Your task to perform on an android device: add a contact in the contacts app Image 0: 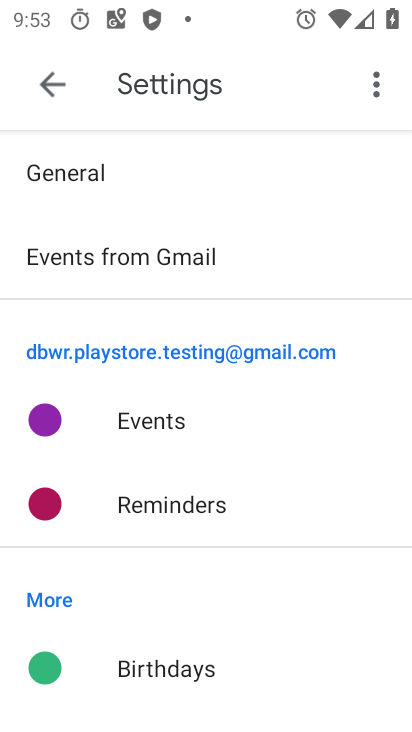
Step 0: press home button
Your task to perform on an android device: add a contact in the contacts app Image 1: 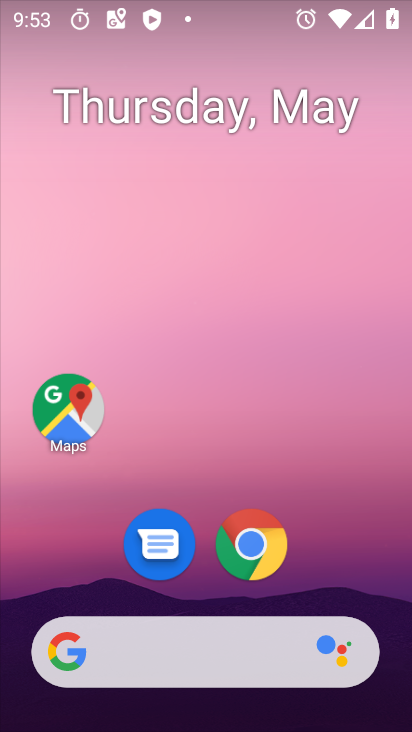
Step 1: drag from (218, 568) to (227, 264)
Your task to perform on an android device: add a contact in the contacts app Image 2: 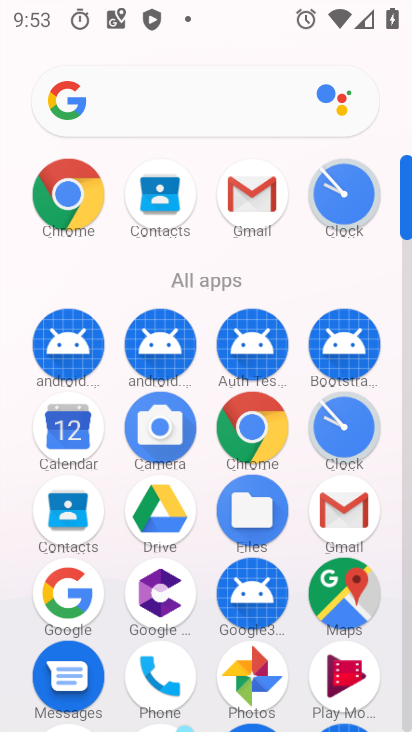
Step 2: click (76, 507)
Your task to perform on an android device: add a contact in the contacts app Image 3: 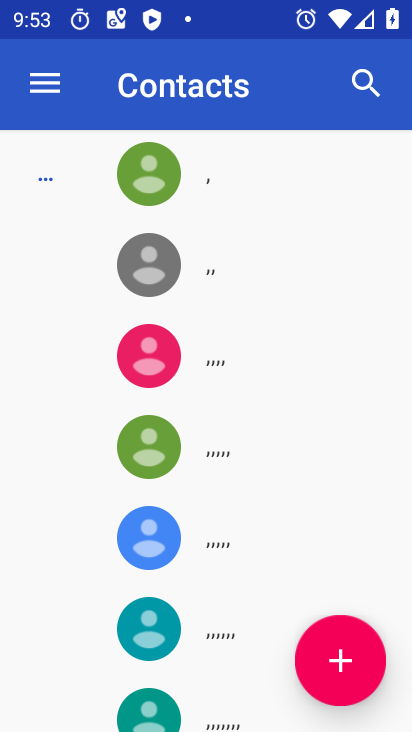
Step 3: click (333, 667)
Your task to perform on an android device: add a contact in the contacts app Image 4: 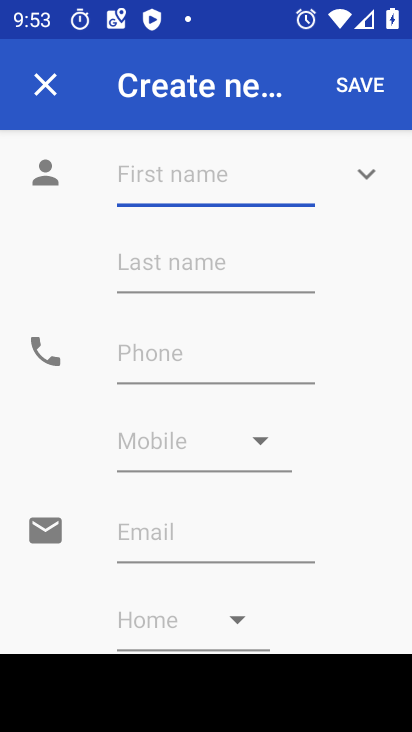
Step 4: type "dfdf"
Your task to perform on an android device: add a contact in the contacts app Image 5: 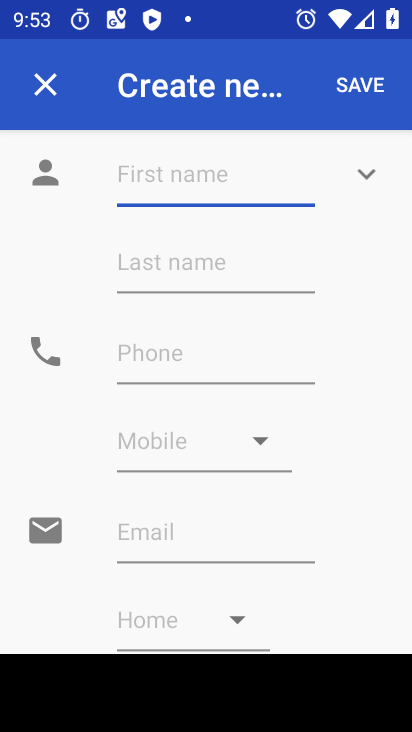
Step 5: click (161, 267)
Your task to perform on an android device: add a contact in the contacts app Image 6: 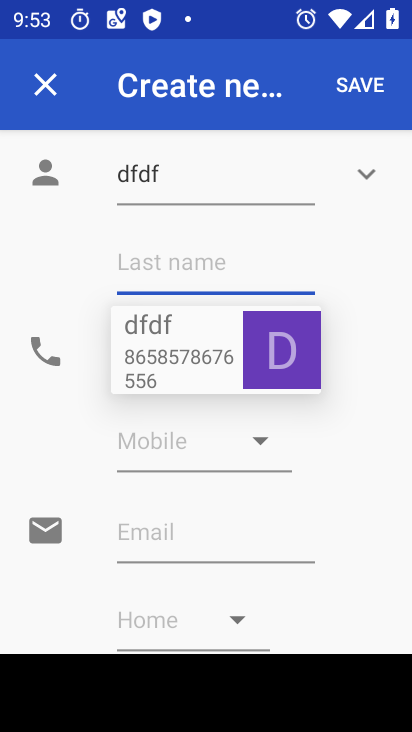
Step 6: type "dgdg"
Your task to perform on an android device: add a contact in the contacts app Image 7: 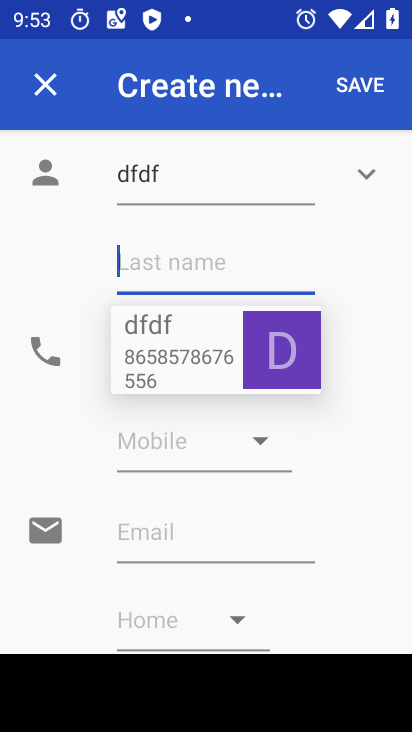
Step 7: click (176, 445)
Your task to perform on an android device: add a contact in the contacts app Image 8: 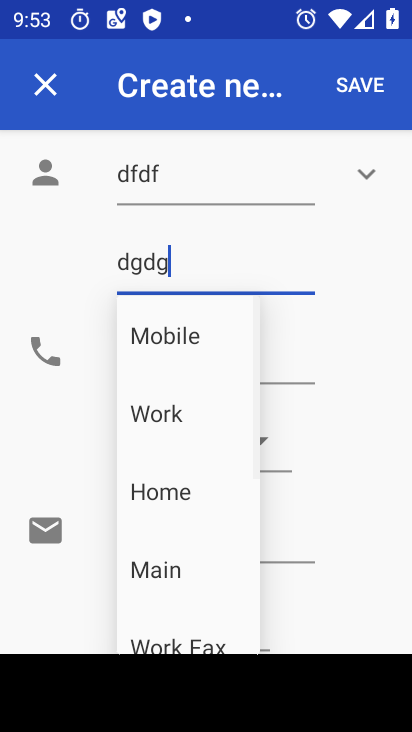
Step 8: click (282, 361)
Your task to perform on an android device: add a contact in the contacts app Image 9: 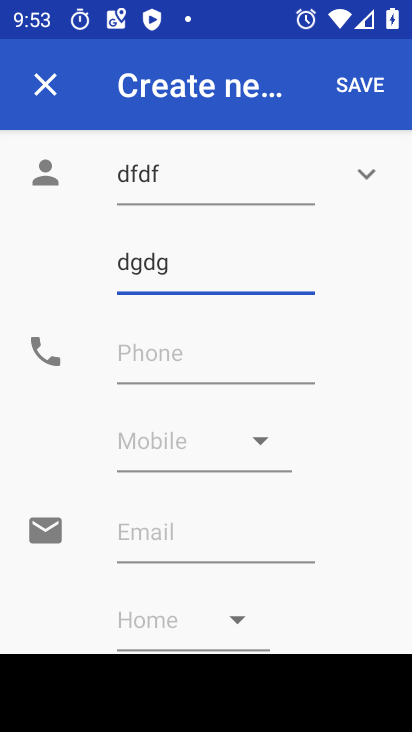
Step 9: click (147, 357)
Your task to perform on an android device: add a contact in the contacts app Image 10: 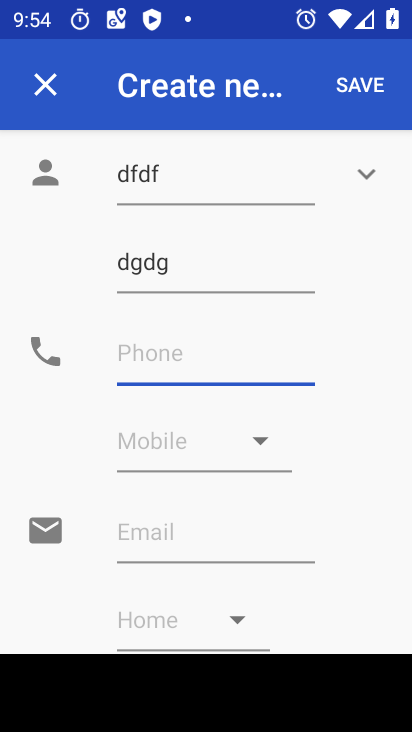
Step 10: type "4343"
Your task to perform on an android device: add a contact in the contacts app Image 11: 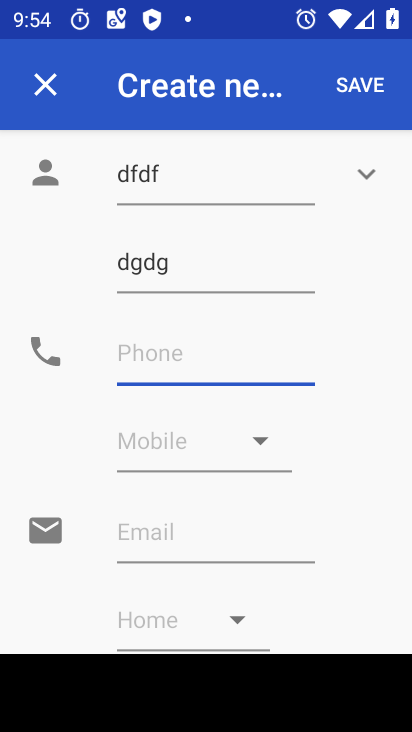
Step 11: click (180, 431)
Your task to perform on an android device: add a contact in the contacts app Image 12: 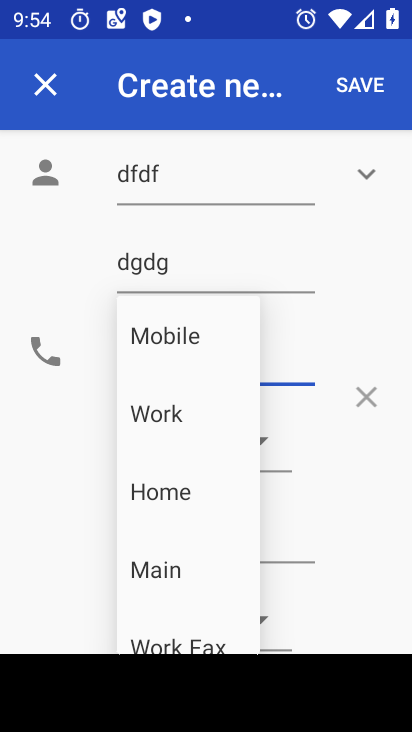
Step 12: click (365, 92)
Your task to perform on an android device: add a contact in the contacts app Image 13: 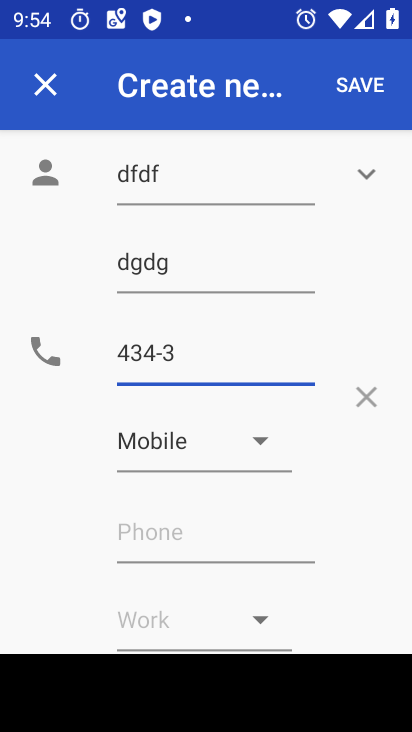
Step 13: click (370, 87)
Your task to perform on an android device: add a contact in the contacts app Image 14: 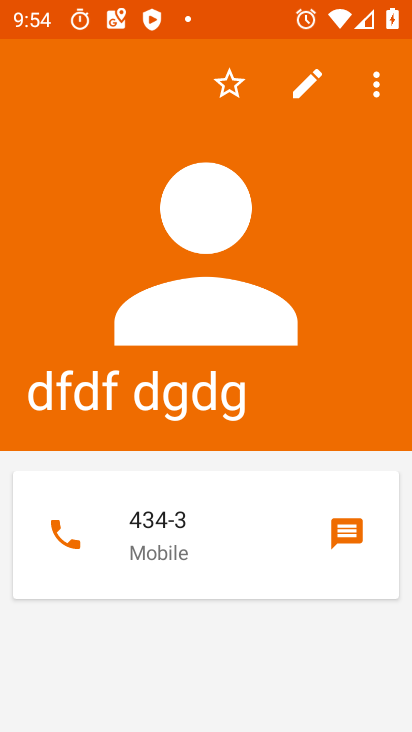
Step 14: task complete